Your task to perform on an android device: Open privacy settings Image 0: 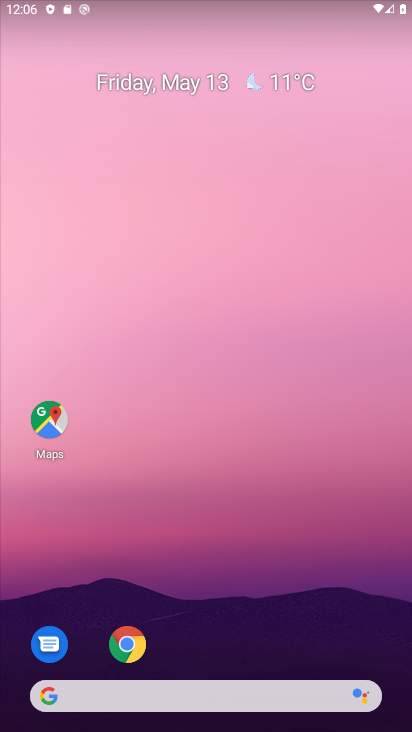
Step 0: drag from (201, 723) to (197, 219)
Your task to perform on an android device: Open privacy settings Image 1: 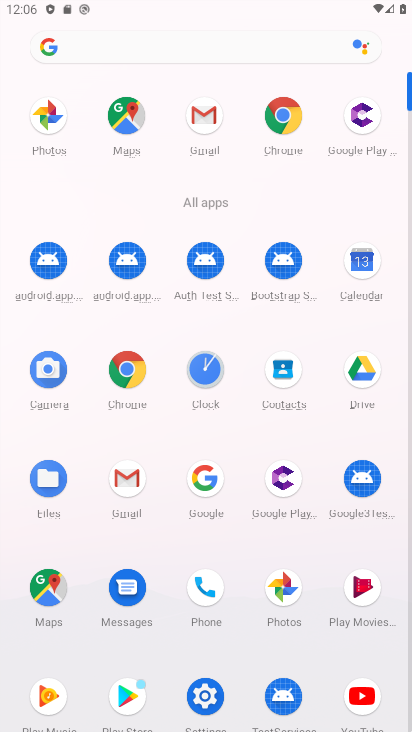
Step 1: click (207, 689)
Your task to perform on an android device: Open privacy settings Image 2: 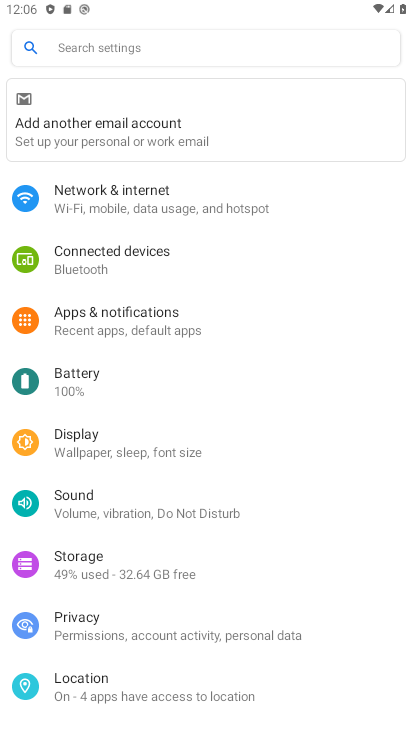
Step 2: click (73, 631)
Your task to perform on an android device: Open privacy settings Image 3: 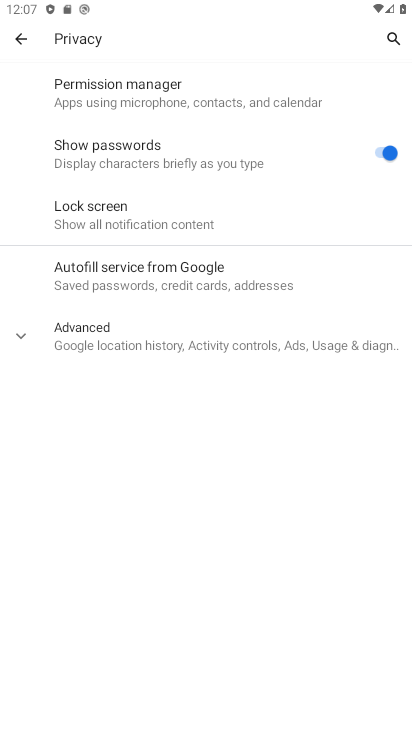
Step 3: task complete